Your task to perform on an android device: make emails show in primary in the gmail app Image 0: 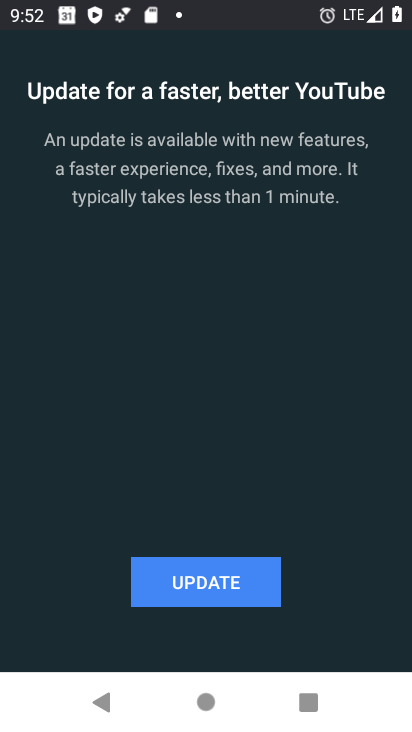
Step 0: press home button
Your task to perform on an android device: make emails show in primary in the gmail app Image 1: 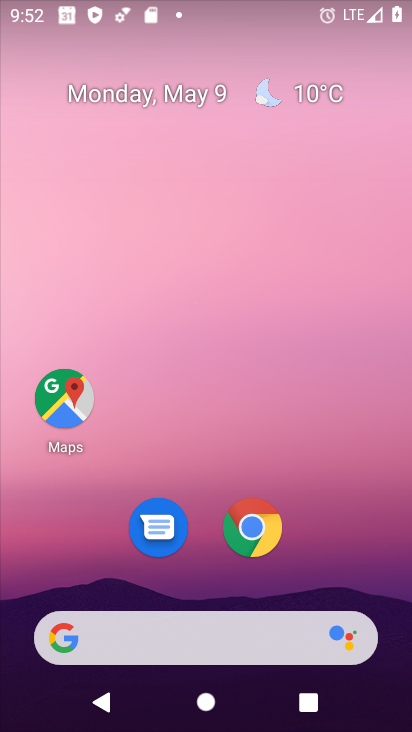
Step 1: drag from (390, 664) to (273, 217)
Your task to perform on an android device: make emails show in primary in the gmail app Image 2: 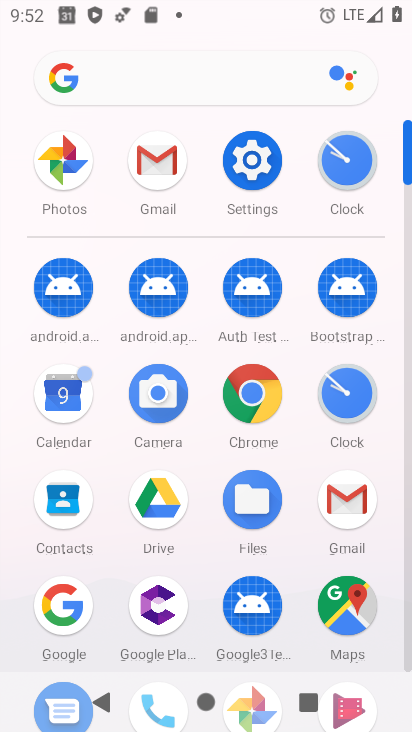
Step 2: click (408, 653)
Your task to perform on an android device: make emails show in primary in the gmail app Image 3: 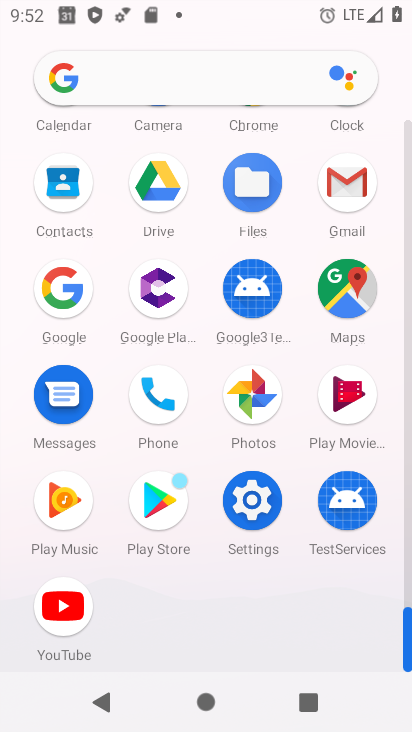
Step 3: click (344, 178)
Your task to perform on an android device: make emails show in primary in the gmail app Image 4: 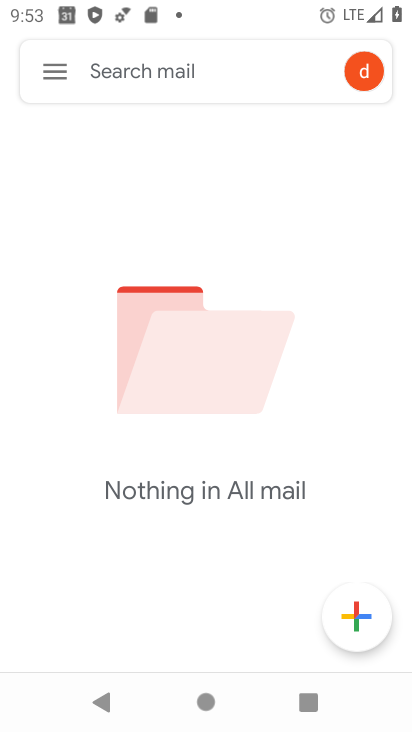
Step 4: click (50, 71)
Your task to perform on an android device: make emails show in primary in the gmail app Image 5: 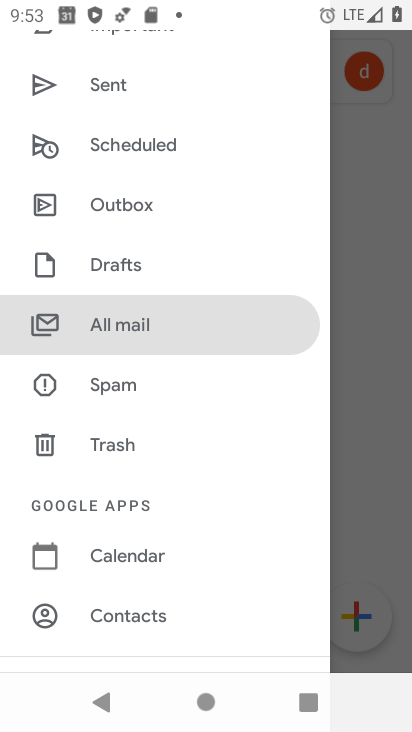
Step 5: drag from (231, 619) to (187, 232)
Your task to perform on an android device: make emails show in primary in the gmail app Image 6: 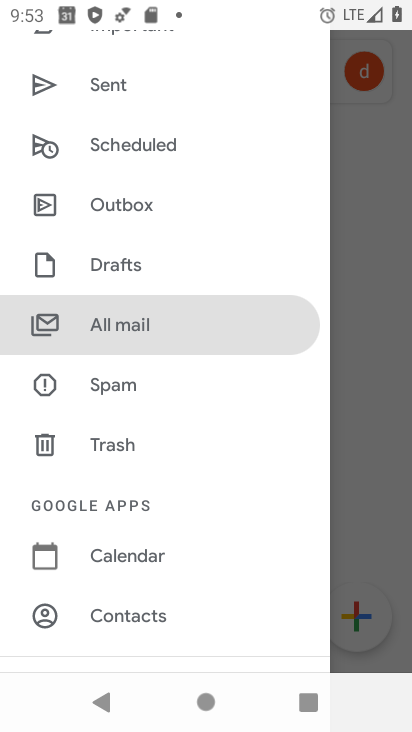
Step 6: drag from (220, 593) to (283, 208)
Your task to perform on an android device: make emails show in primary in the gmail app Image 7: 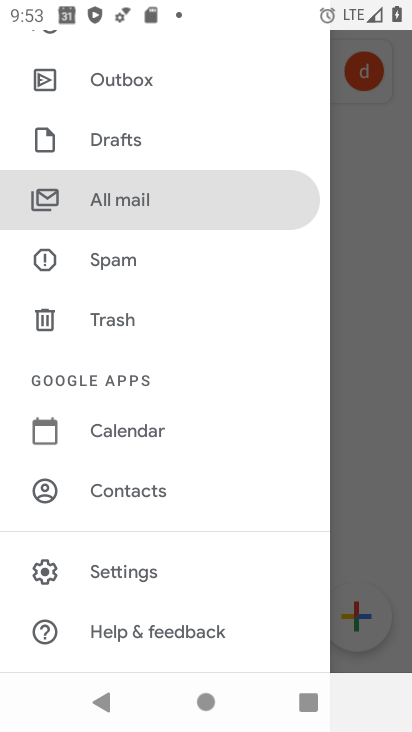
Step 7: click (128, 580)
Your task to perform on an android device: make emails show in primary in the gmail app Image 8: 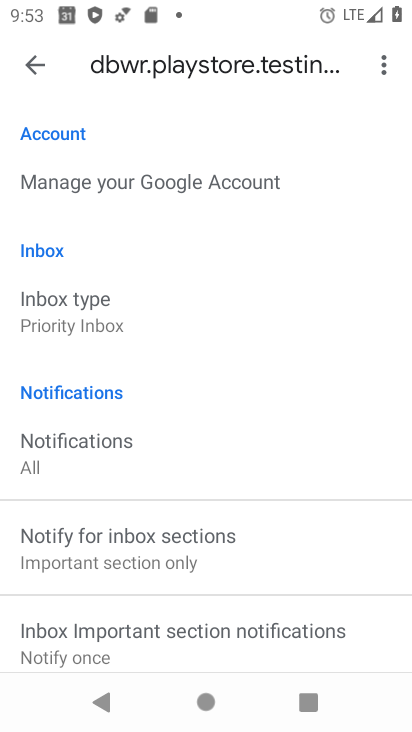
Step 8: drag from (154, 619) to (173, 439)
Your task to perform on an android device: make emails show in primary in the gmail app Image 9: 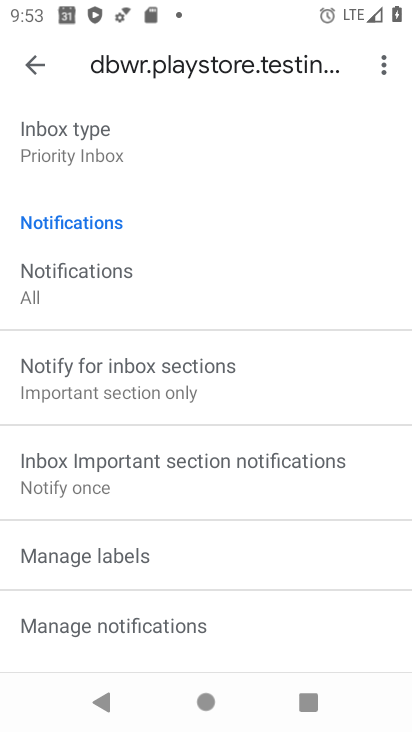
Step 9: click (55, 134)
Your task to perform on an android device: make emails show in primary in the gmail app Image 10: 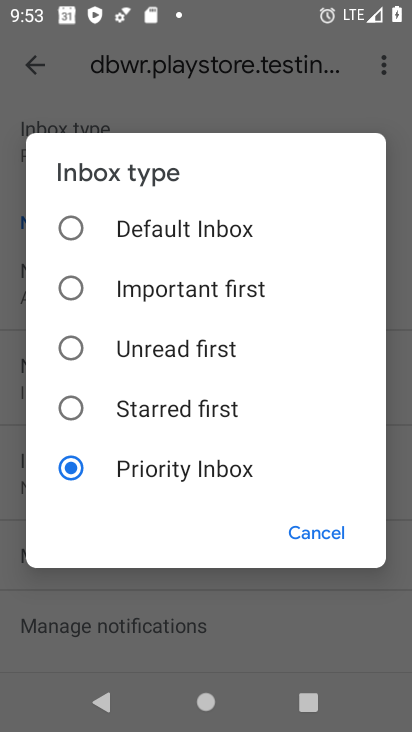
Step 10: click (72, 227)
Your task to perform on an android device: make emails show in primary in the gmail app Image 11: 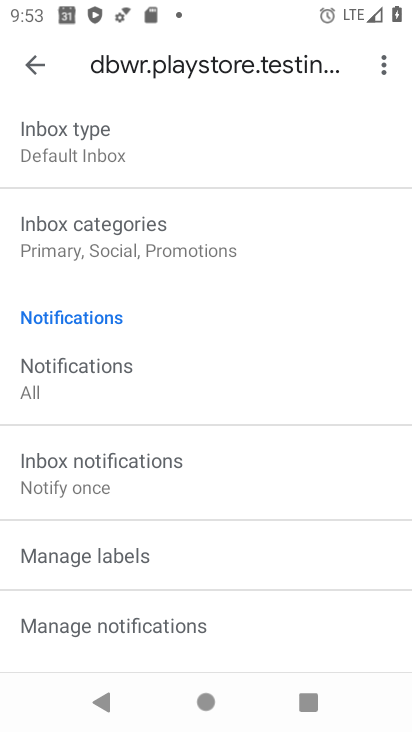
Step 11: click (110, 215)
Your task to perform on an android device: make emails show in primary in the gmail app Image 12: 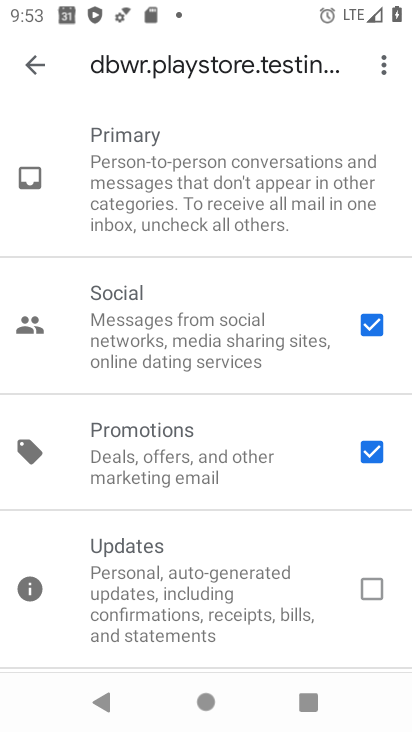
Step 12: click (366, 327)
Your task to perform on an android device: make emails show in primary in the gmail app Image 13: 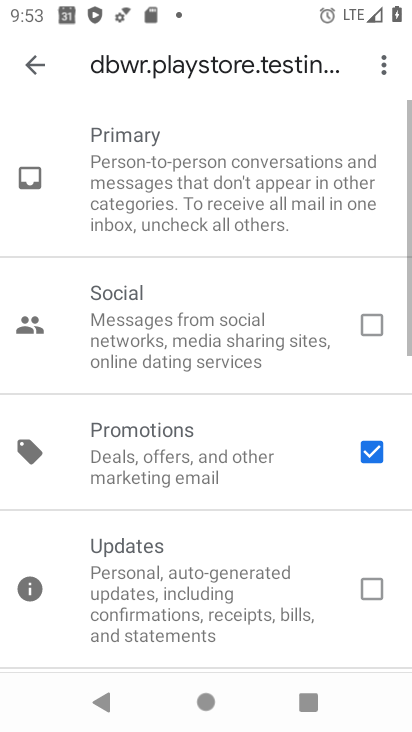
Step 13: click (367, 444)
Your task to perform on an android device: make emails show in primary in the gmail app Image 14: 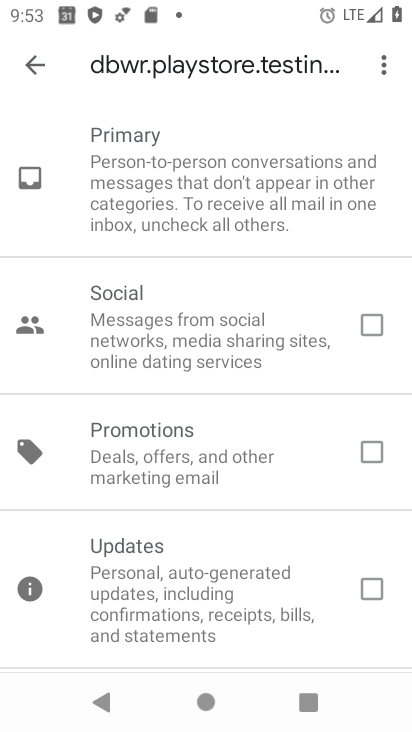
Step 14: task complete